Your task to perform on an android device: Search for a 3D printer on aliexpress. Image 0: 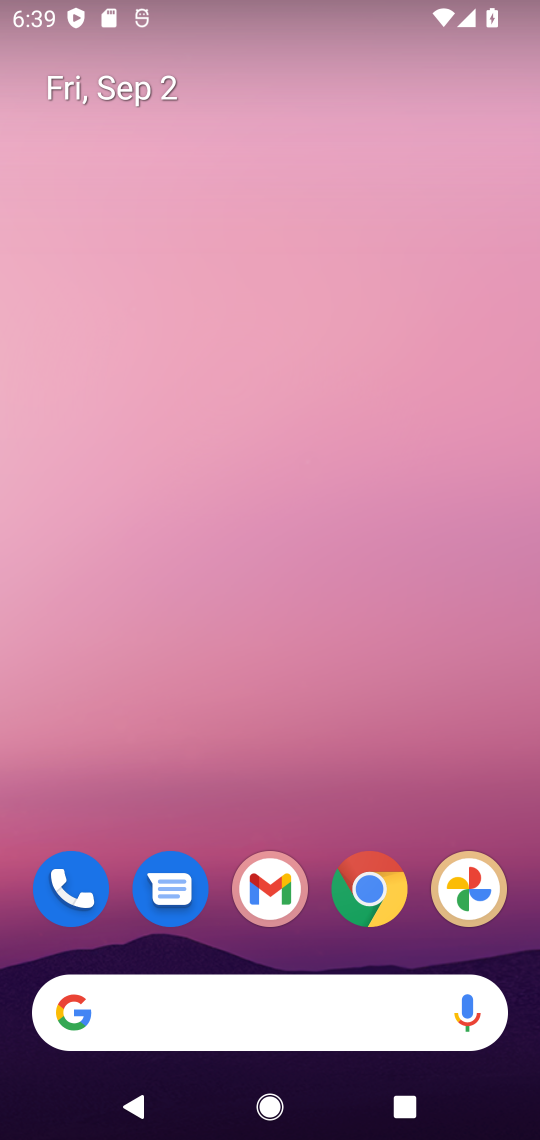
Step 0: click (268, 1008)
Your task to perform on an android device: Search for a 3D printer on aliexpress. Image 1: 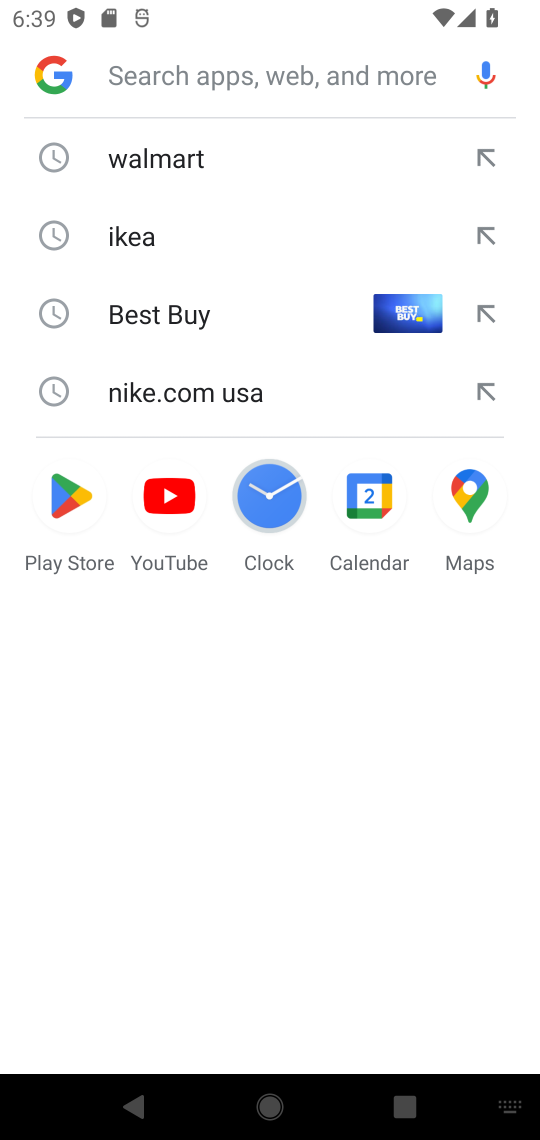
Step 1: type "aliexpress"
Your task to perform on an android device: Search for a 3D printer on aliexpress. Image 2: 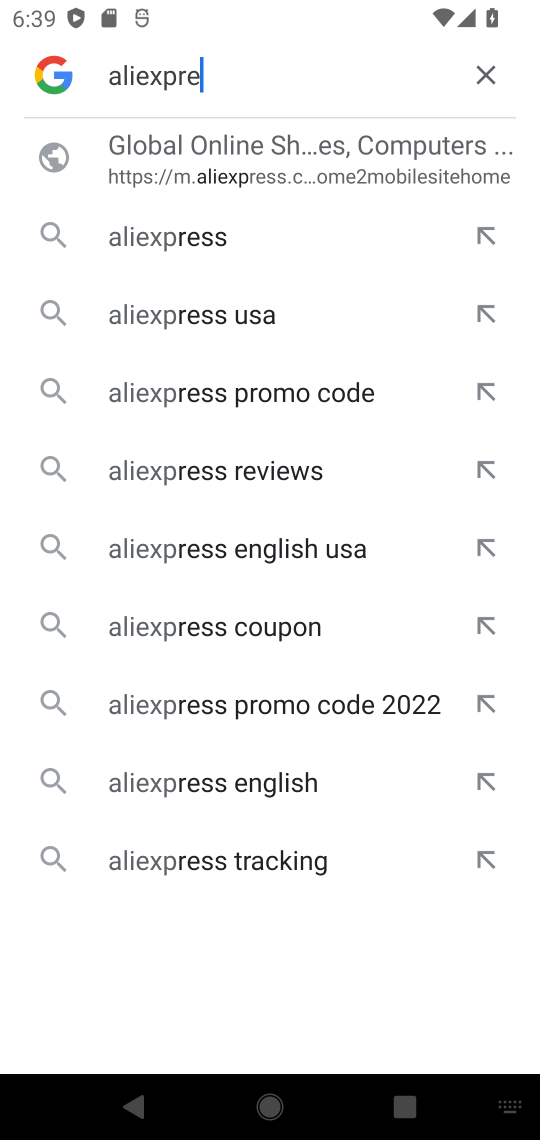
Step 2: type ""
Your task to perform on an android device: Search for a 3D printer on aliexpress. Image 3: 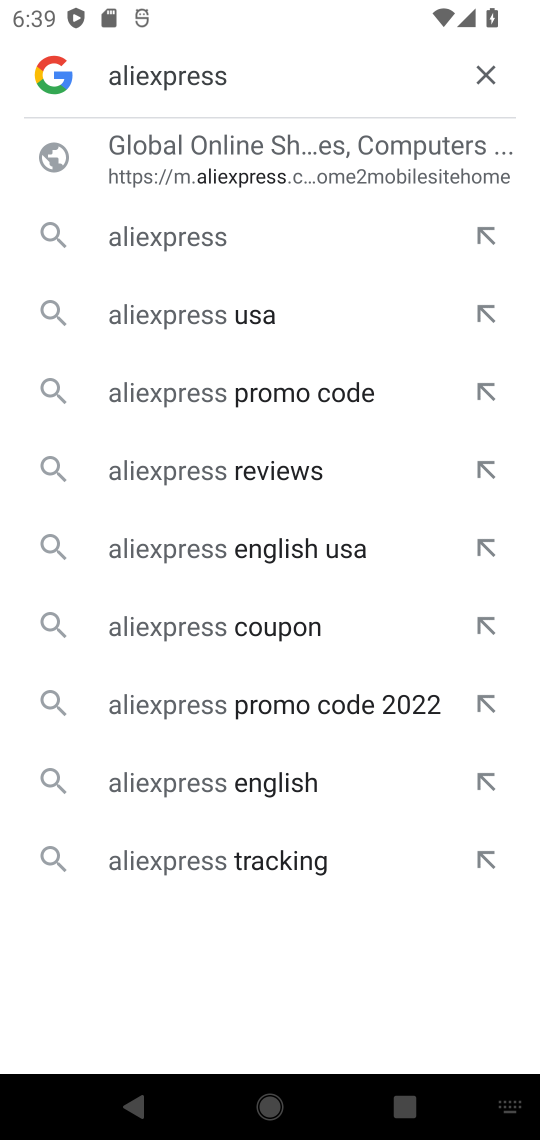
Step 3: click (306, 224)
Your task to perform on an android device: Search for a 3D printer on aliexpress. Image 4: 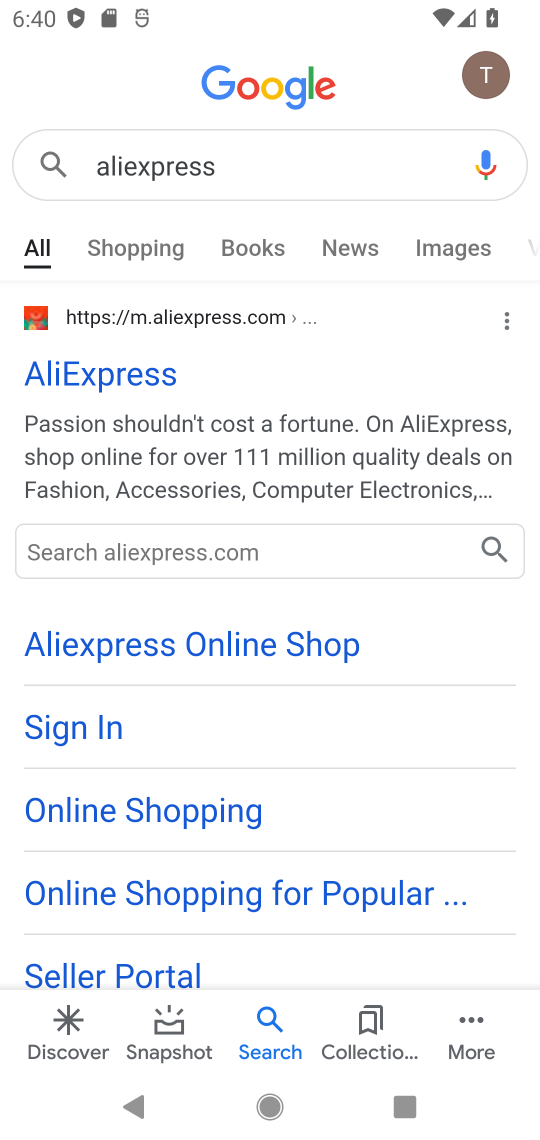
Step 4: click (124, 384)
Your task to perform on an android device: Search for a 3D printer on aliexpress. Image 5: 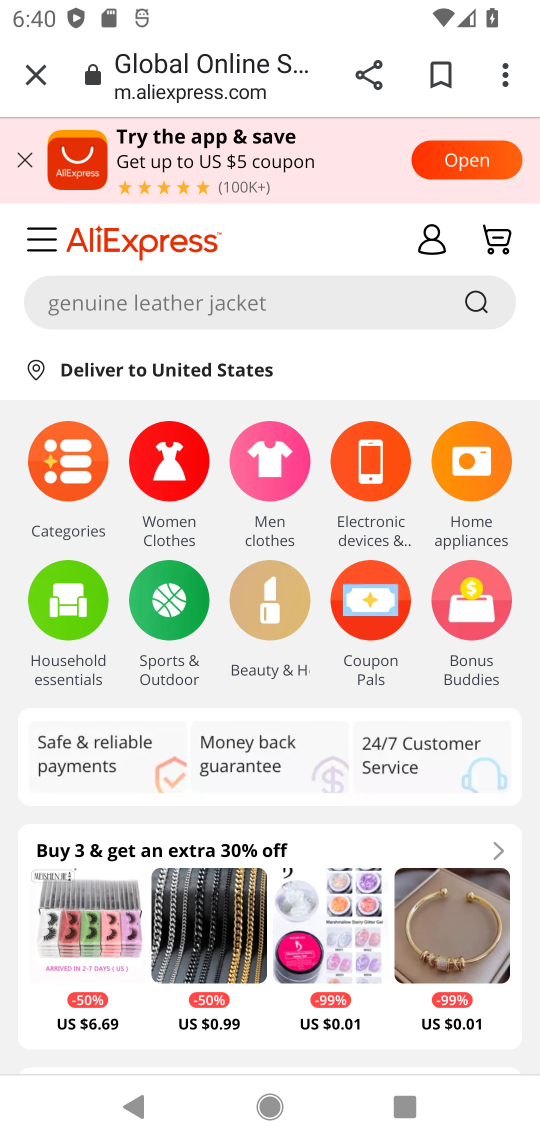
Step 5: click (244, 294)
Your task to perform on an android device: Search for a 3D printer on aliexpress. Image 6: 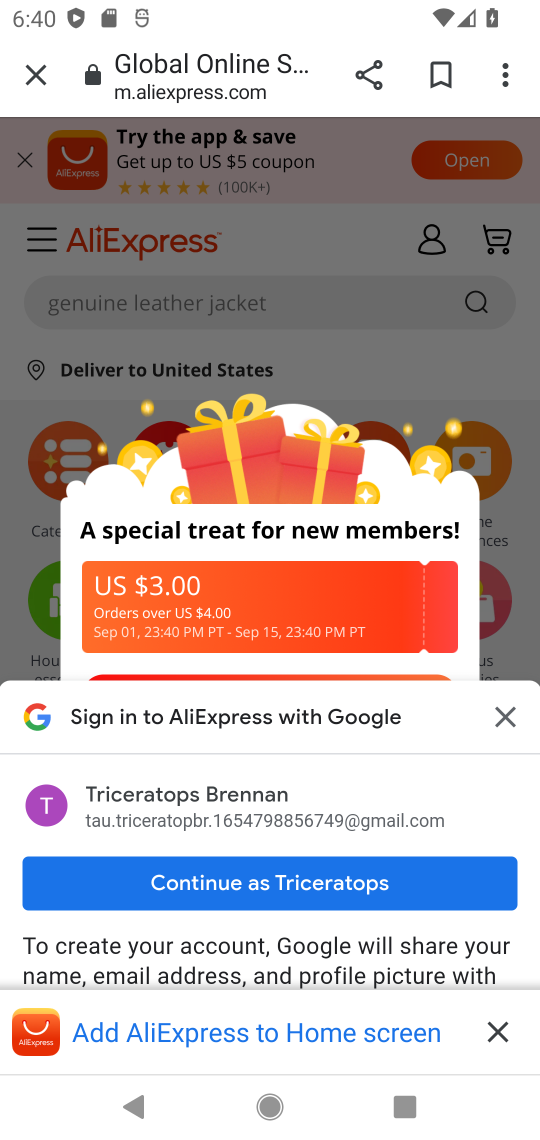
Step 6: type "3D printer"
Your task to perform on an android device: Search for a 3D printer on aliexpress. Image 7: 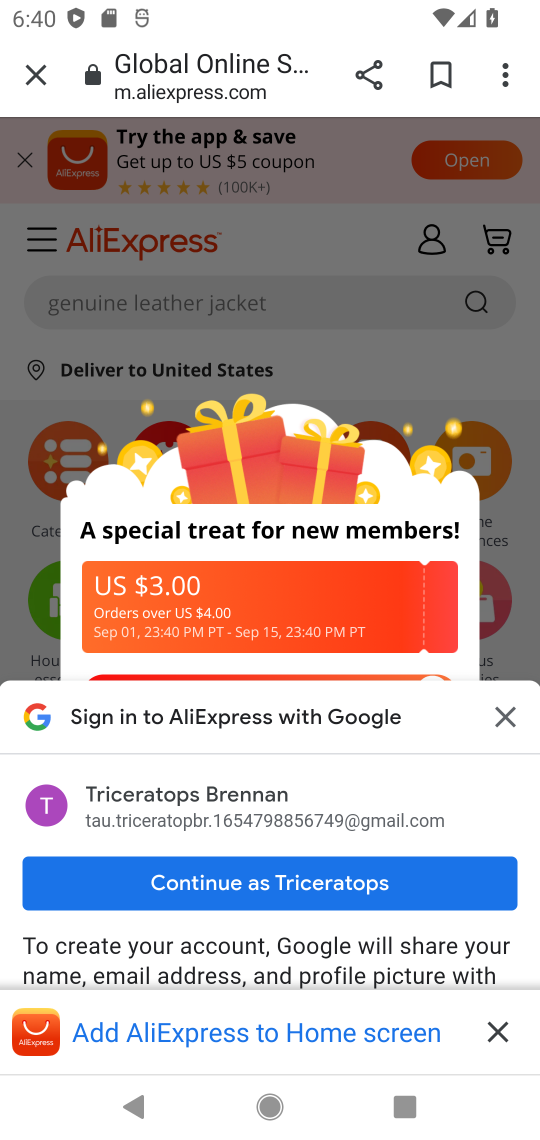
Step 7: type ""
Your task to perform on an android device: Search for a 3D printer on aliexpress. Image 8: 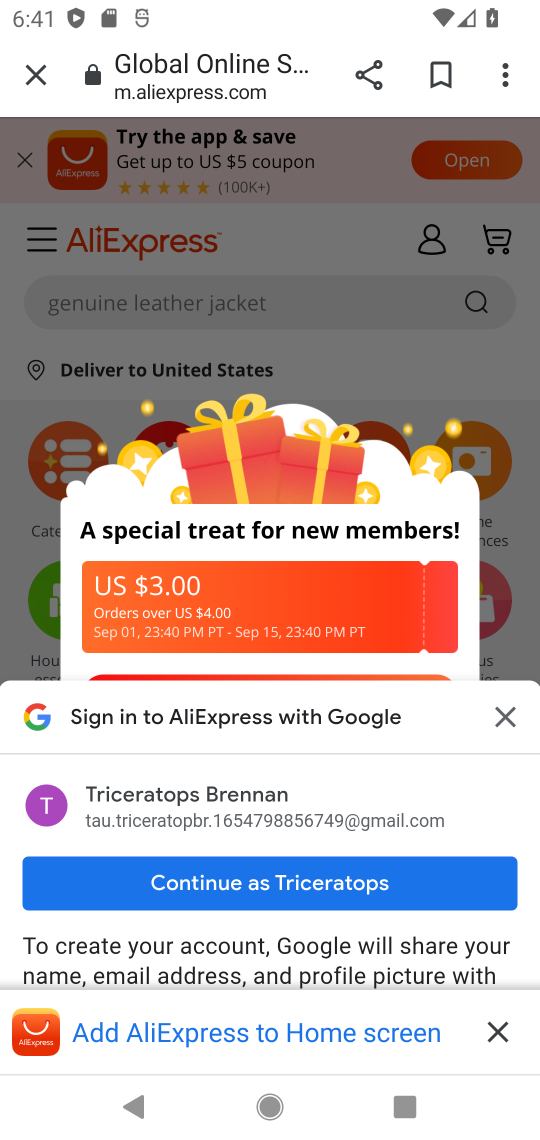
Step 8: click (503, 711)
Your task to perform on an android device: Search for a 3D printer on aliexpress. Image 9: 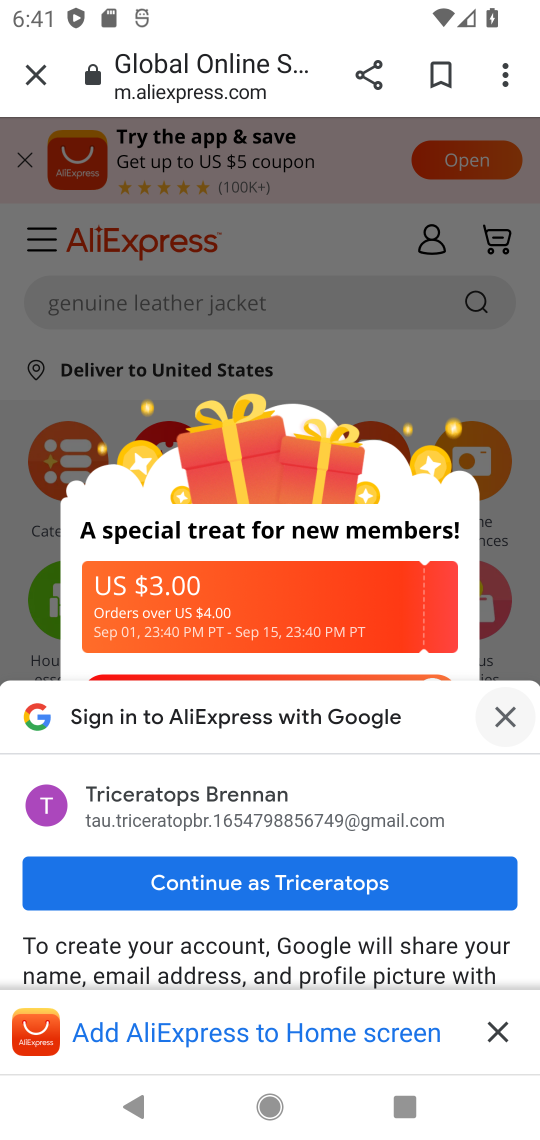
Step 9: click (502, 713)
Your task to perform on an android device: Search for a 3D printer on aliexpress. Image 10: 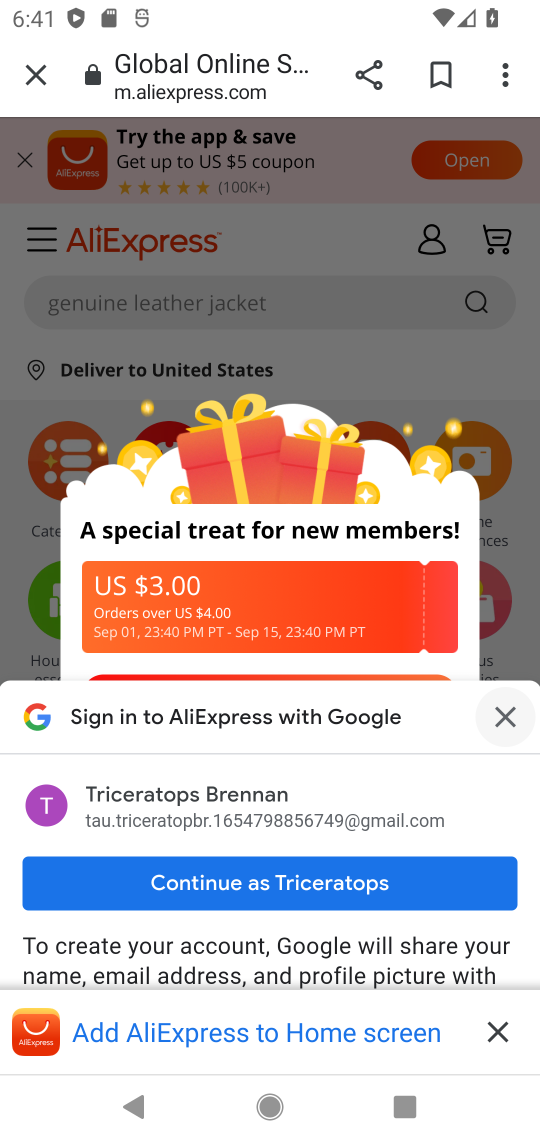
Step 10: click (501, 729)
Your task to perform on an android device: Search for a 3D printer on aliexpress. Image 11: 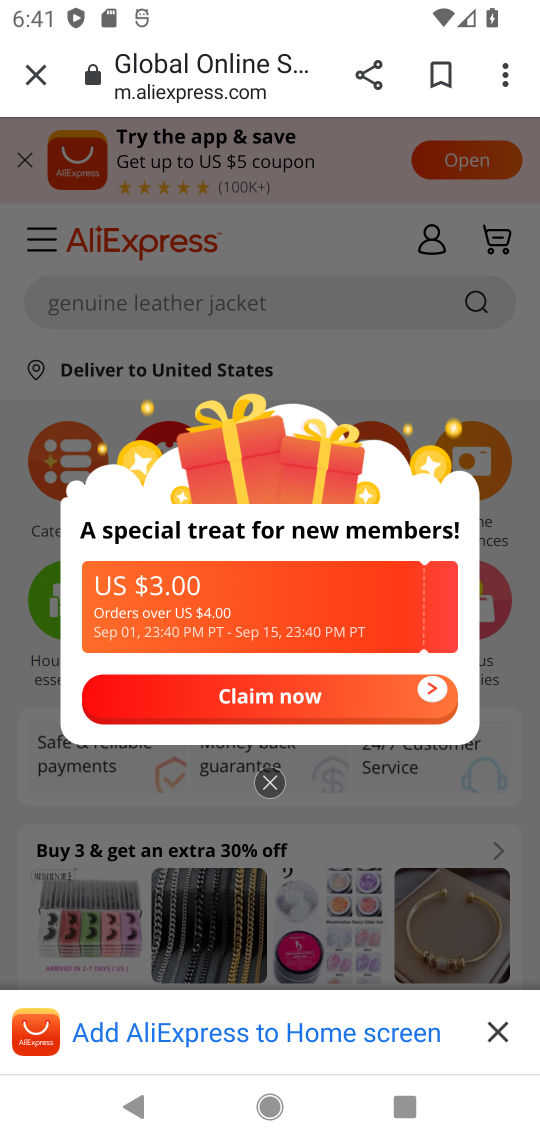
Step 11: click (276, 775)
Your task to perform on an android device: Search for a 3D printer on aliexpress. Image 12: 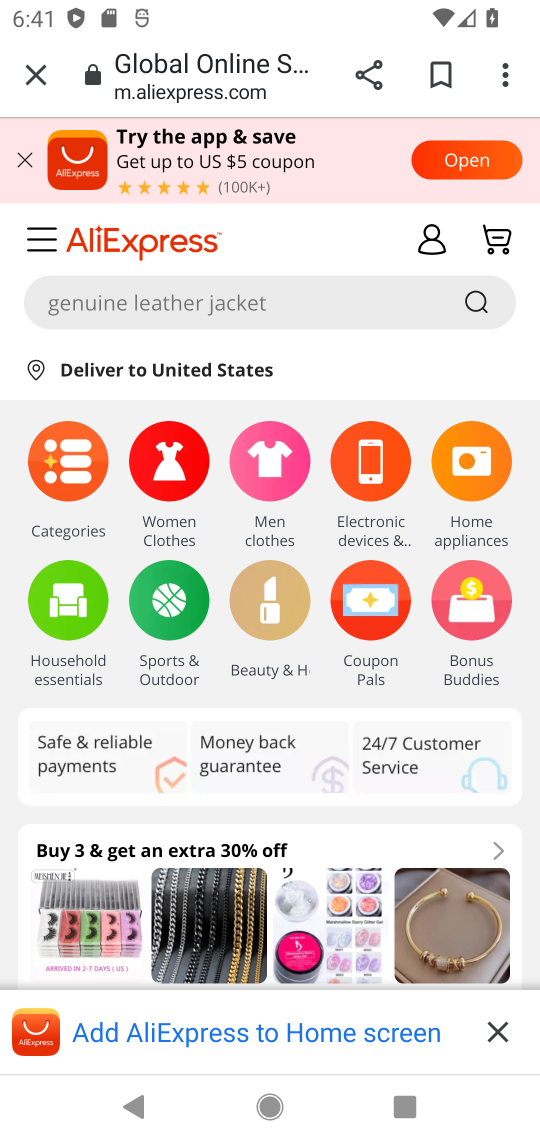
Step 12: click (231, 312)
Your task to perform on an android device: Search for a 3D printer on aliexpress. Image 13: 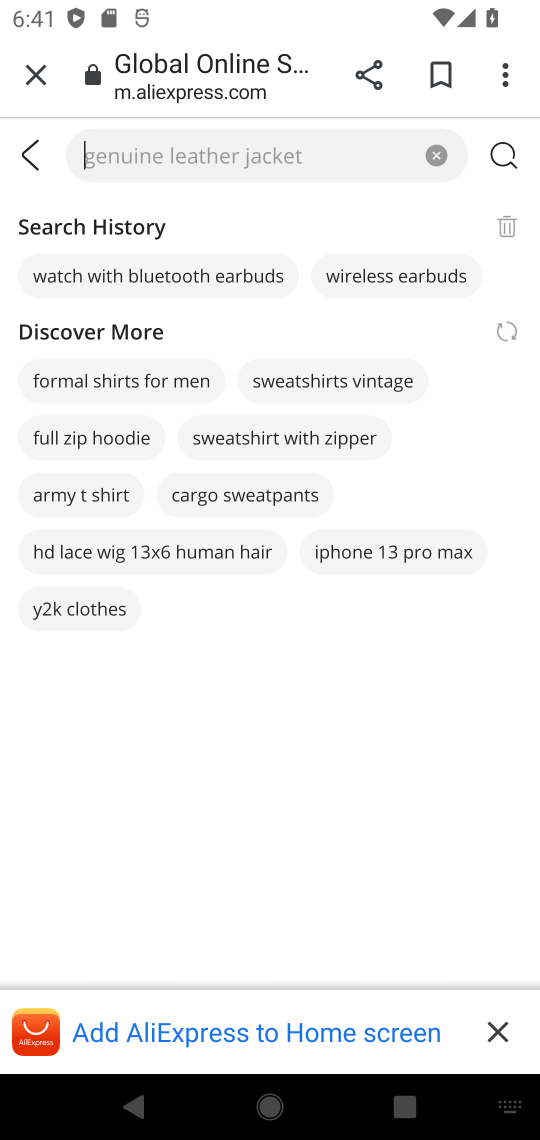
Step 13: type "3D printer"
Your task to perform on an android device: Search for a 3D printer on aliexpress. Image 14: 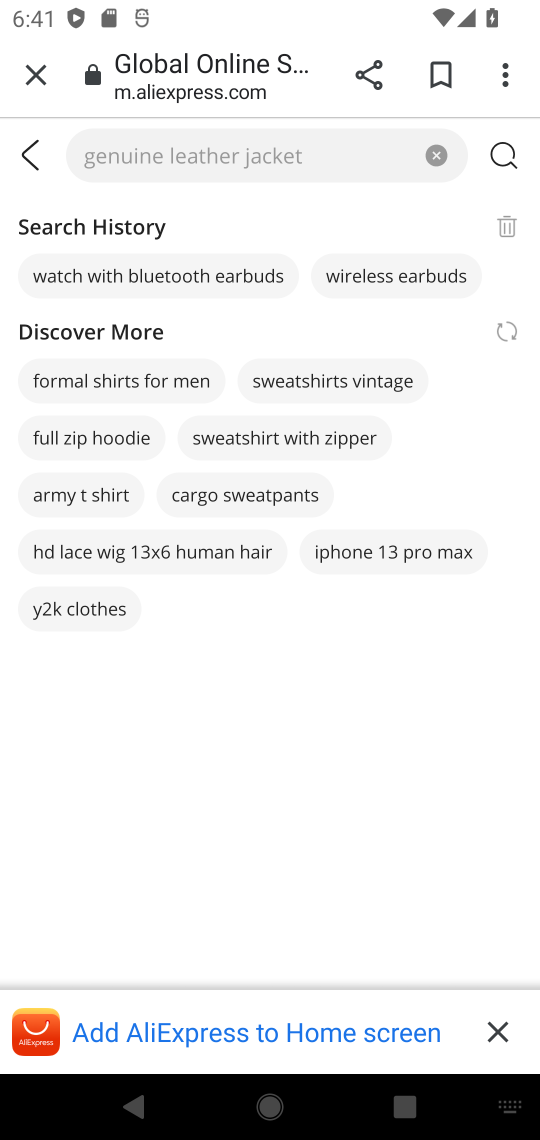
Step 14: type ""
Your task to perform on an android device: Search for a 3D printer on aliexpress. Image 15: 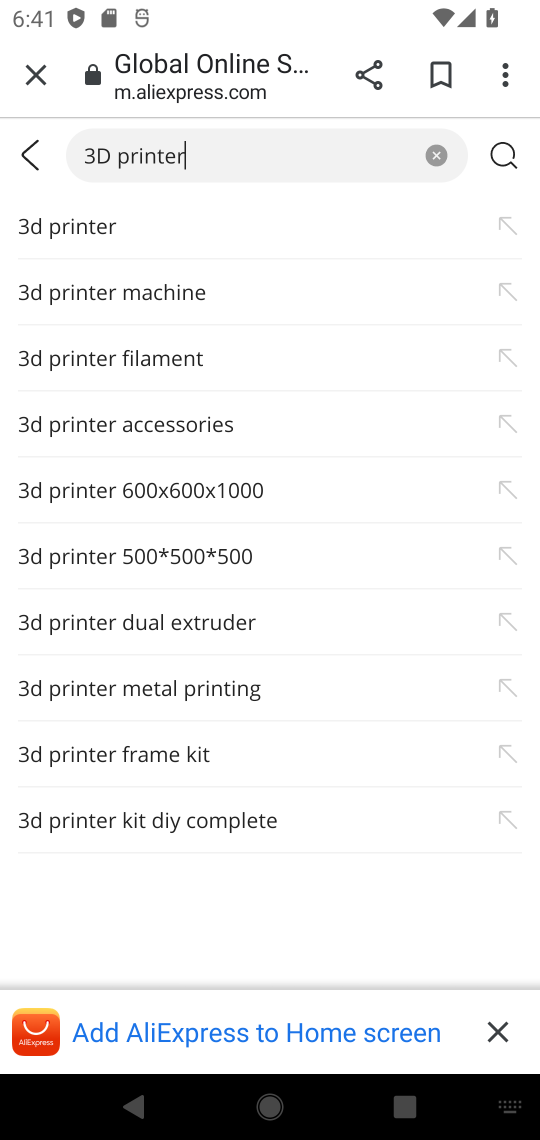
Step 15: click (101, 240)
Your task to perform on an android device: Search for a 3D printer on aliexpress. Image 16: 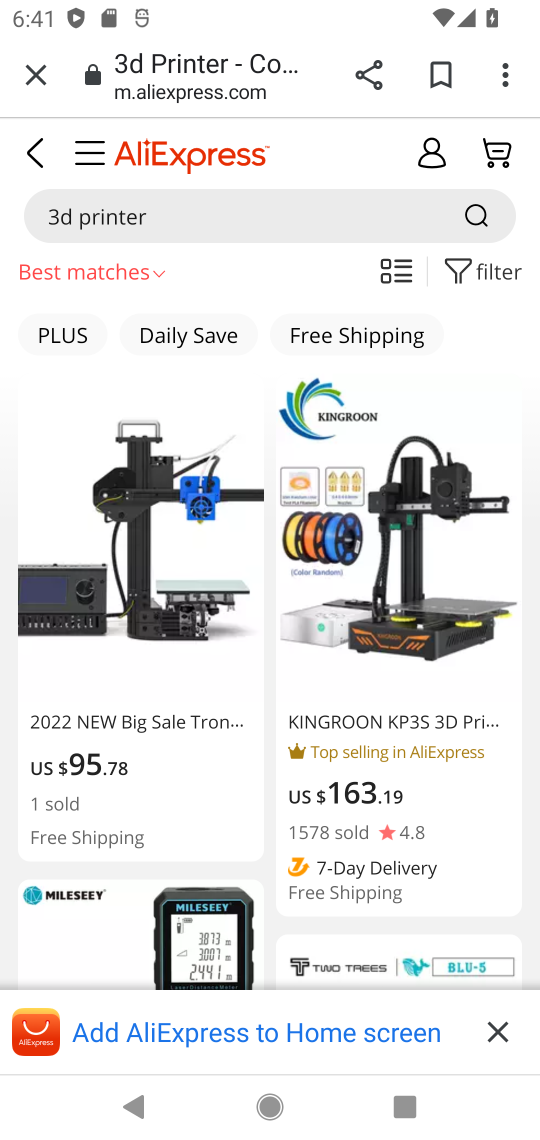
Step 16: task complete